Your task to perform on an android device: change keyboard looks Image 0: 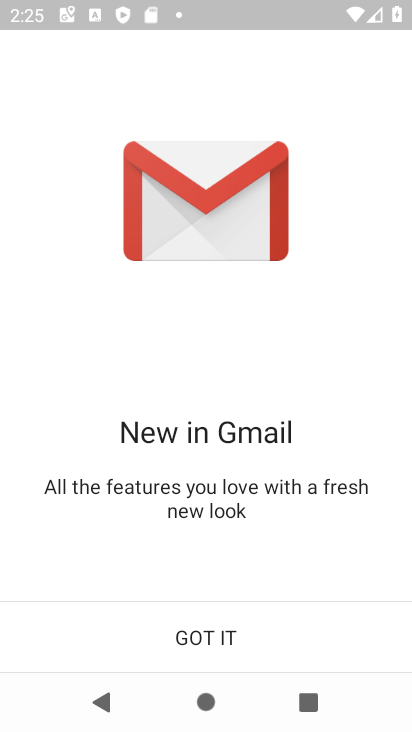
Step 0: click (307, 636)
Your task to perform on an android device: change keyboard looks Image 1: 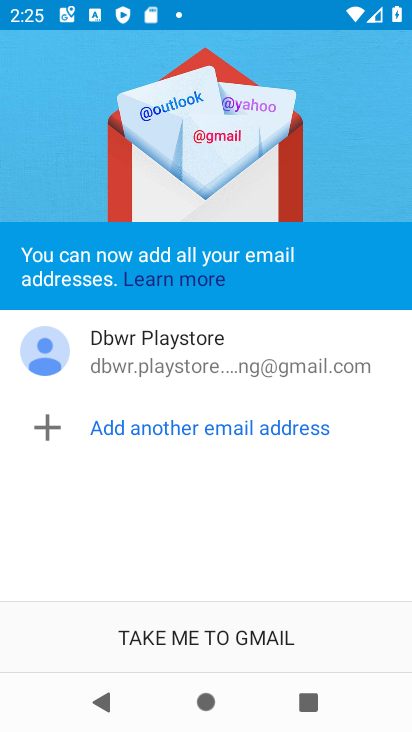
Step 1: click (289, 625)
Your task to perform on an android device: change keyboard looks Image 2: 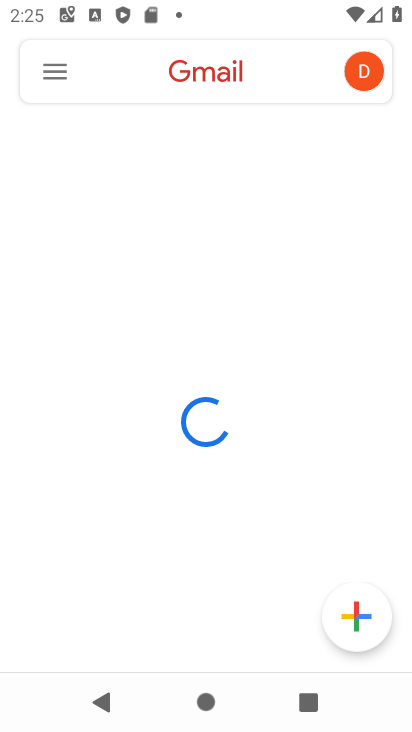
Step 2: press home button
Your task to perform on an android device: change keyboard looks Image 3: 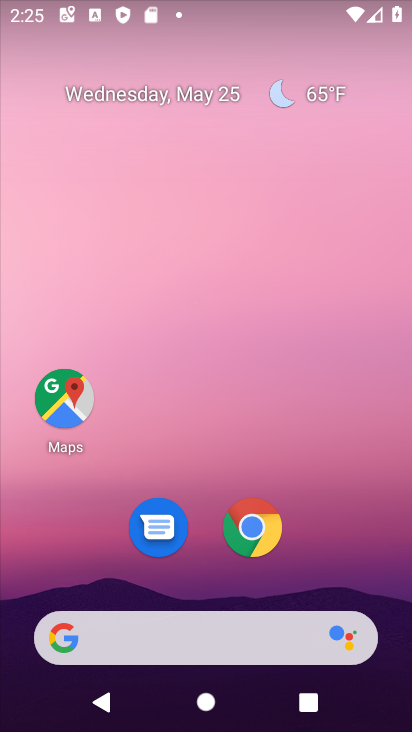
Step 3: drag from (210, 600) to (289, 16)
Your task to perform on an android device: change keyboard looks Image 4: 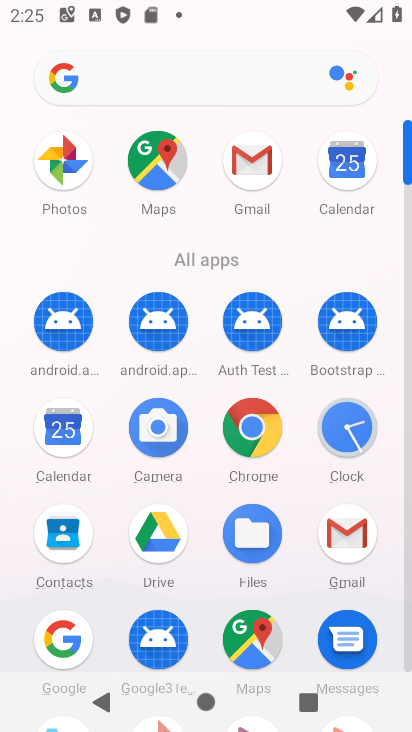
Step 4: drag from (307, 529) to (289, 161)
Your task to perform on an android device: change keyboard looks Image 5: 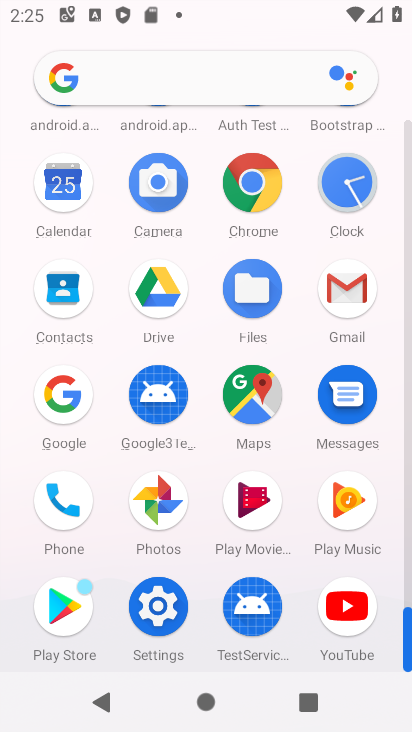
Step 5: click (174, 600)
Your task to perform on an android device: change keyboard looks Image 6: 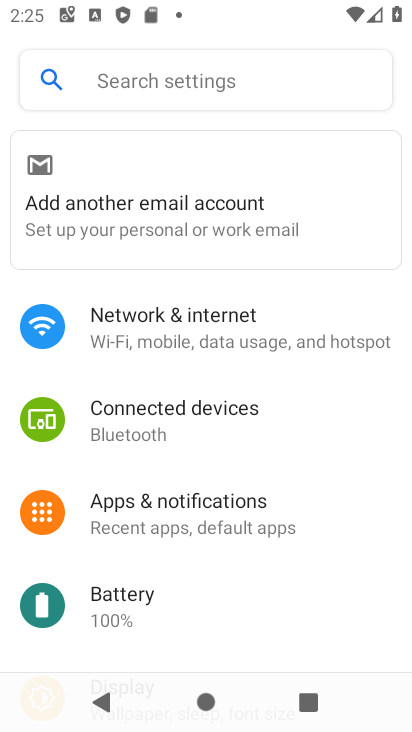
Step 6: drag from (187, 608) to (156, 125)
Your task to perform on an android device: change keyboard looks Image 7: 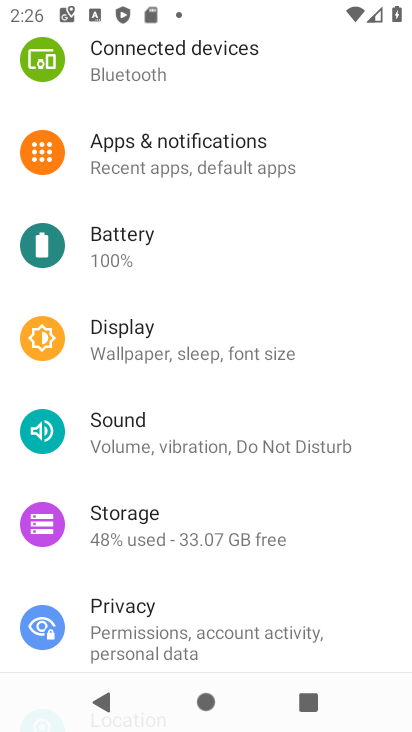
Step 7: drag from (255, 530) to (278, 148)
Your task to perform on an android device: change keyboard looks Image 8: 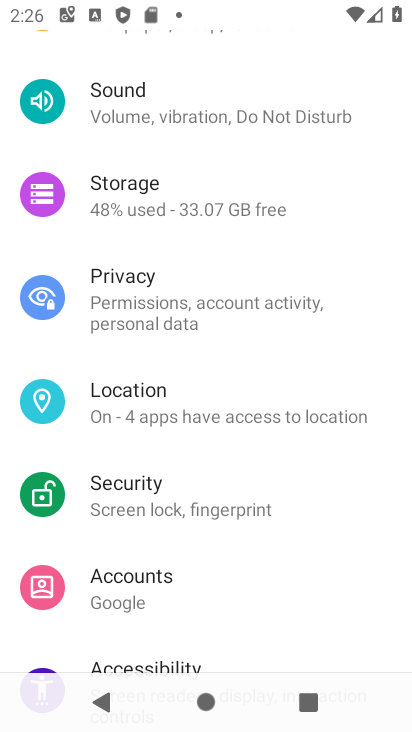
Step 8: drag from (305, 518) to (293, 172)
Your task to perform on an android device: change keyboard looks Image 9: 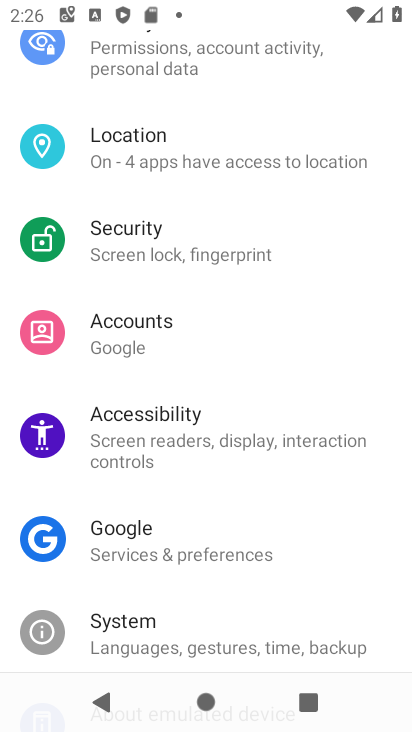
Step 9: click (245, 620)
Your task to perform on an android device: change keyboard looks Image 10: 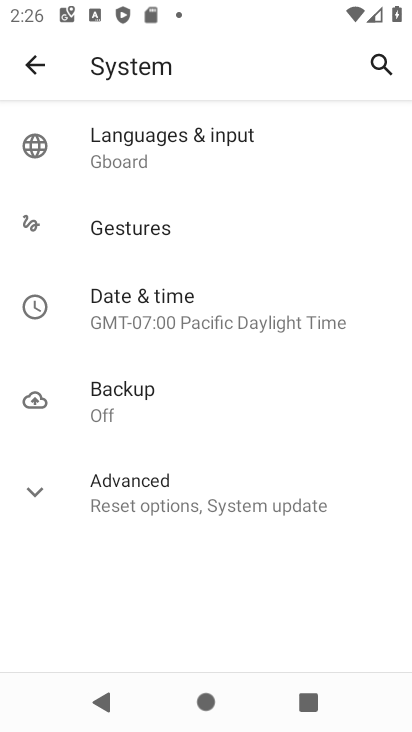
Step 10: click (212, 163)
Your task to perform on an android device: change keyboard looks Image 11: 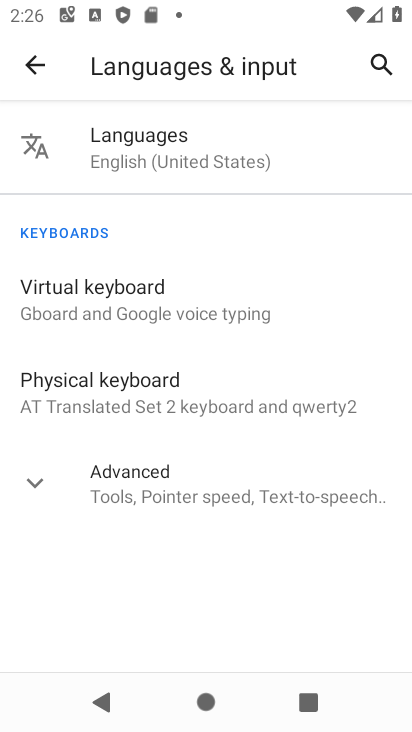
Step 11: click (131, 305)
Your task to perform on an android device: change keyboard looks Image 12: 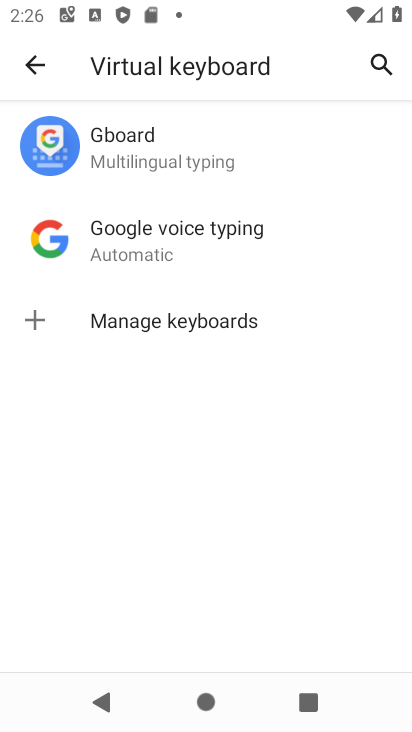
Step 12: click (179, 136)
Your task to perform on an android device: change keyboard looks Image 13: 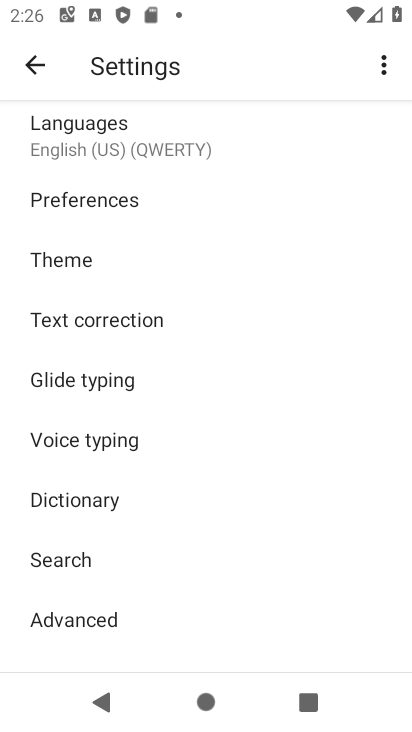
Step 13: click (92, 254)
Your task to perform on an android device: change keyboard looks Image 14: 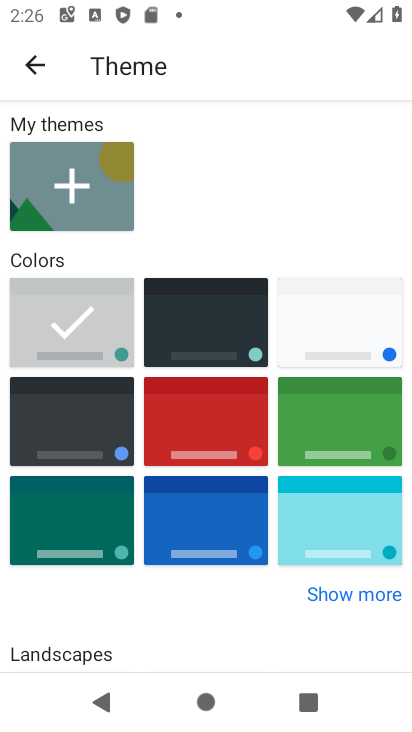
Step 14: click (242, 442)
Your task to perform on an android device: change keyboard looks Image 15: 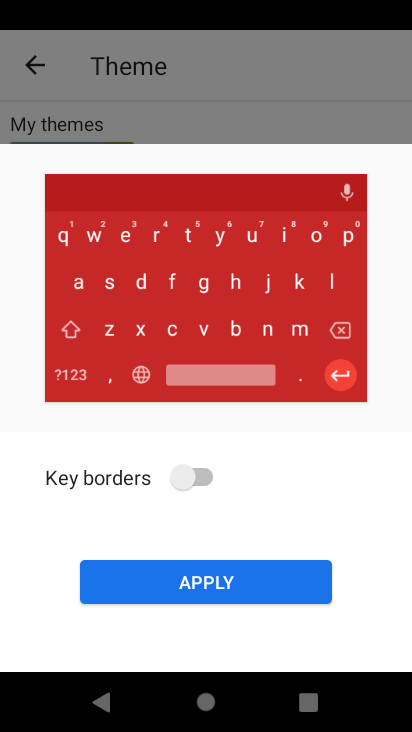
Step 15: click (248, 588)
Your task to perform on an android device: change keyboard looks Image 16: 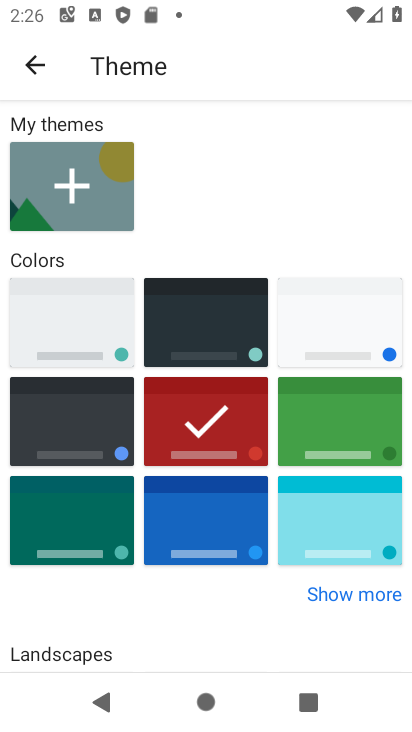
Step 16: task complete